Your task to perform on an android device: set the timer Image 0: 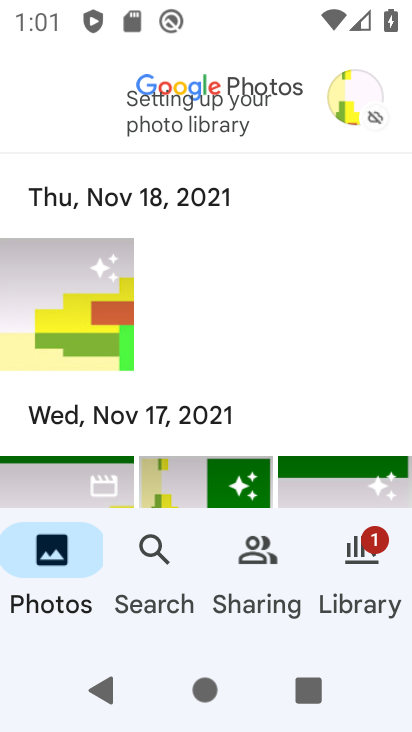
Step 0: press home button
Your task to perform on an android device: set the timer Image 1: 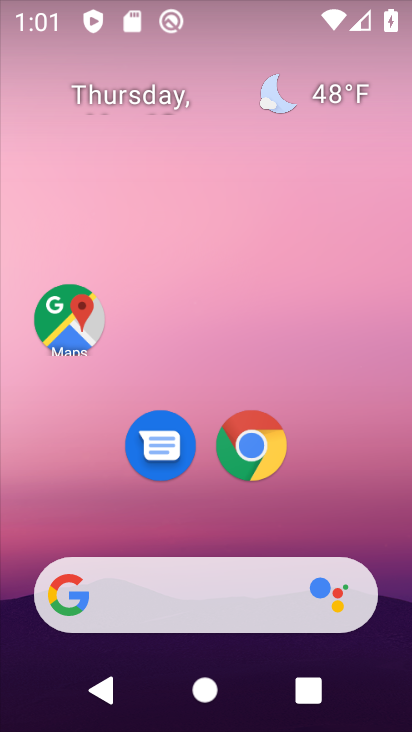
Step 1: drag from (222, 382) to (226, 0)
Your task to perform on an android device: set the timer Image 2: 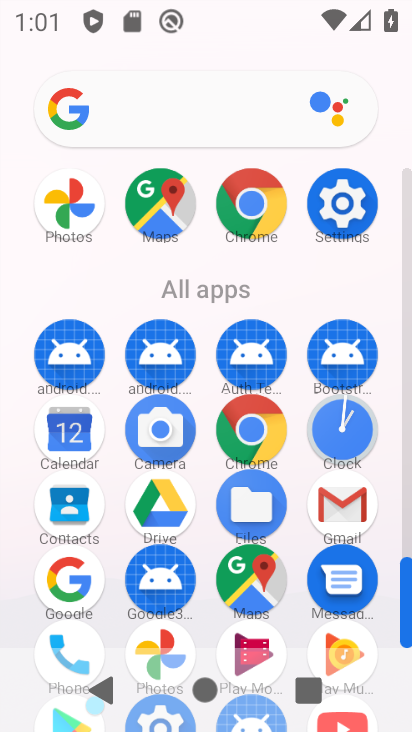
Step 2: click (343, 424)
Your task to perform on an android device: set the timer Image 3: 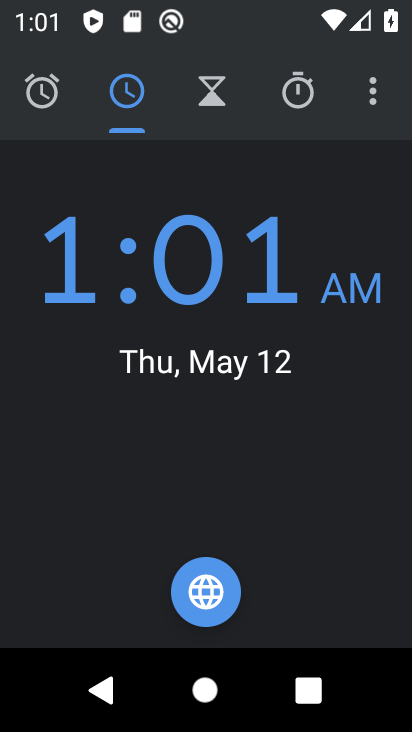
Step 3: click (369, 90)
Your task to perform on an android device: set the timer Image 4: 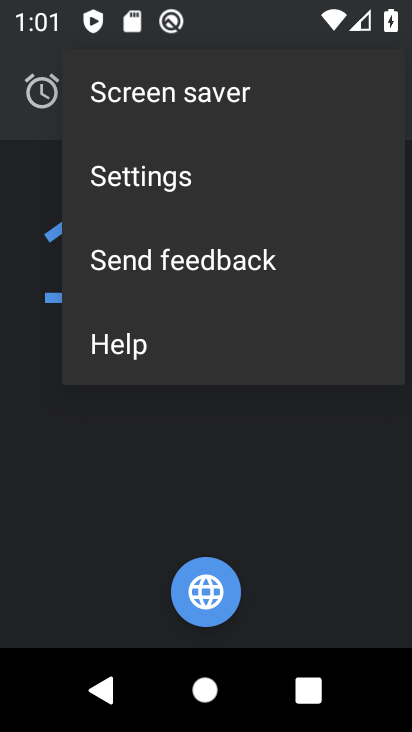
Step 4: click (143, 451)
Your task to perform on an android device: set the timer Image 5: 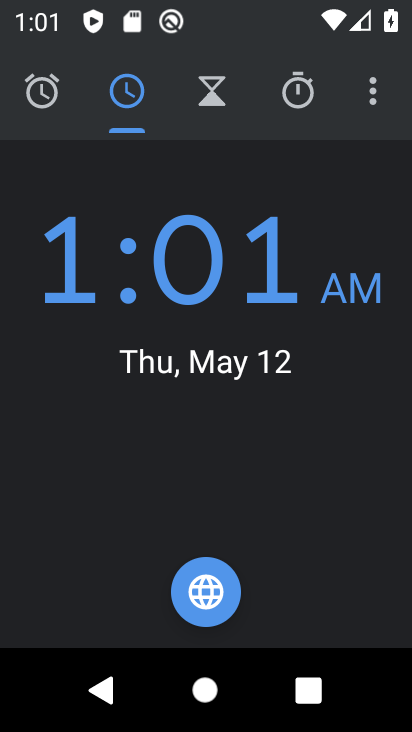
Step 5: click (216, 91)
Your task to perform on an android device: set the timer Image 6: 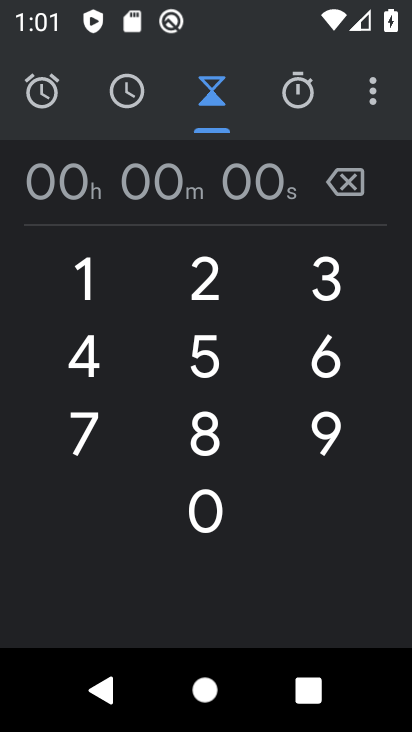
Step 6: click (86, 274)
Your task to perform on an android device: set the timer Image 7: 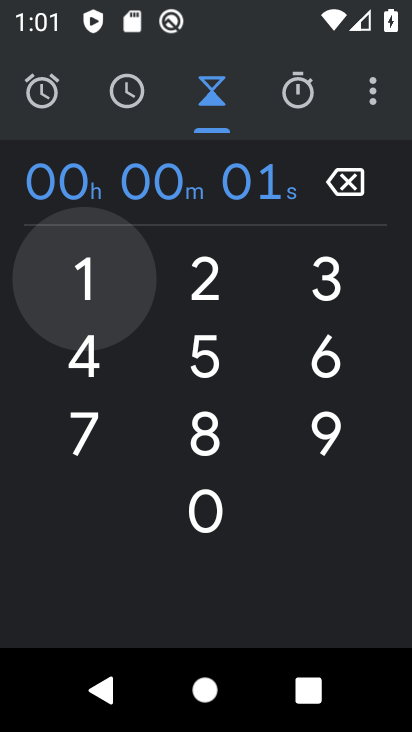
Step 7: click (210, 277)
Your task to perform on an android device: set the timer Image 8: 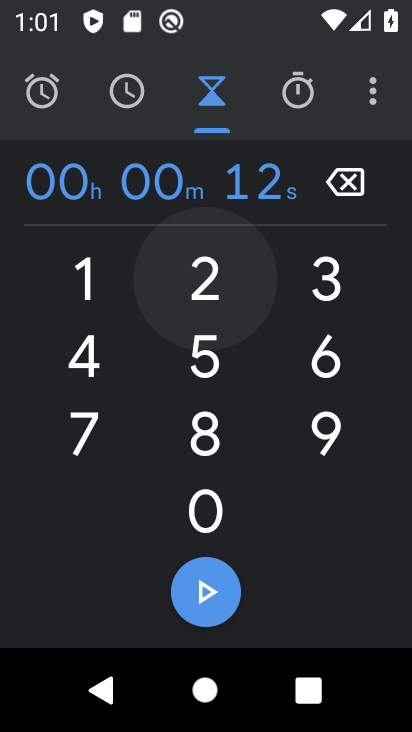
Step 8: click (339, 280)
Your task to perform on an android device: set the timer Image 9: 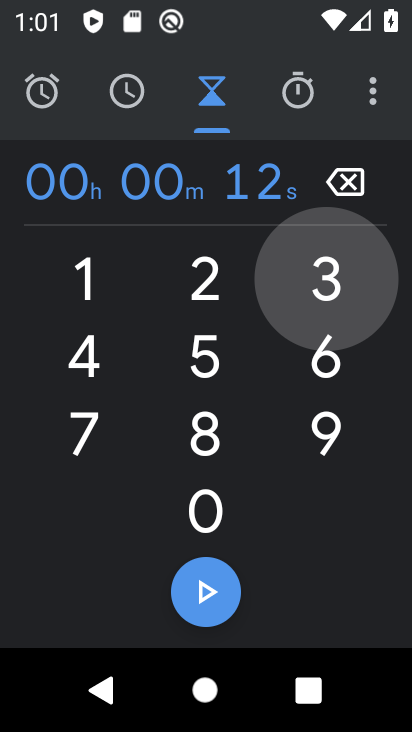
Step 9: click (83, 375)
Your task to perform on an android device: set the timer Image 10: 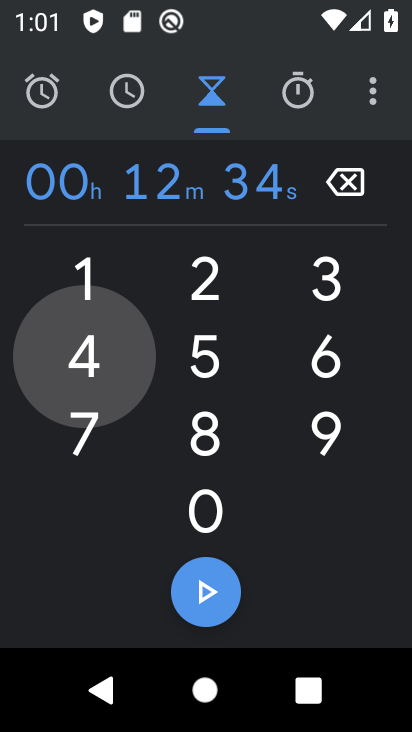
Step 10: click (221, 379)
Your task to perform on an android device: set the timer Image 11: 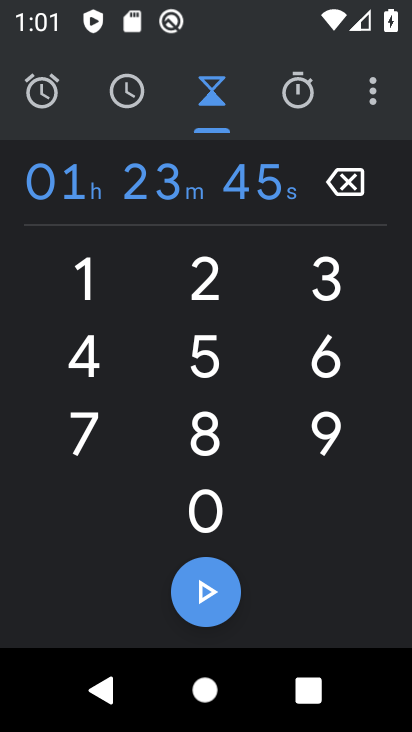
Step 11: click (212, 584)
Your task to perform on an android device: set the timer Image 12: 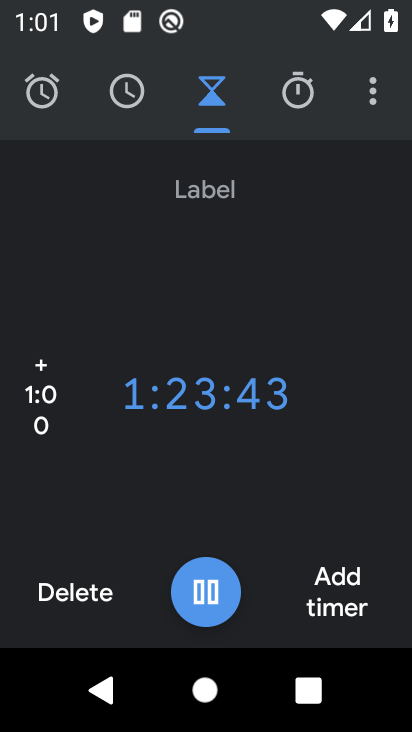
Step 12: task complete